Your task to perform on an android device: refresh tabs in the chrome app Image 0: 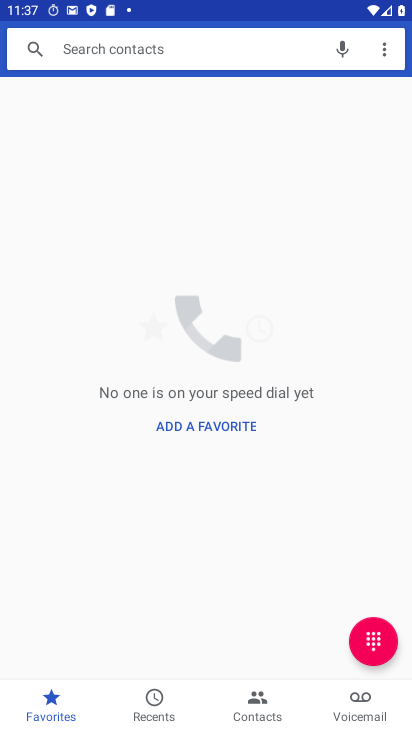
Step 0: press home button
Your task to perform on an android device: refresh tabs in the chrome app Image 1: 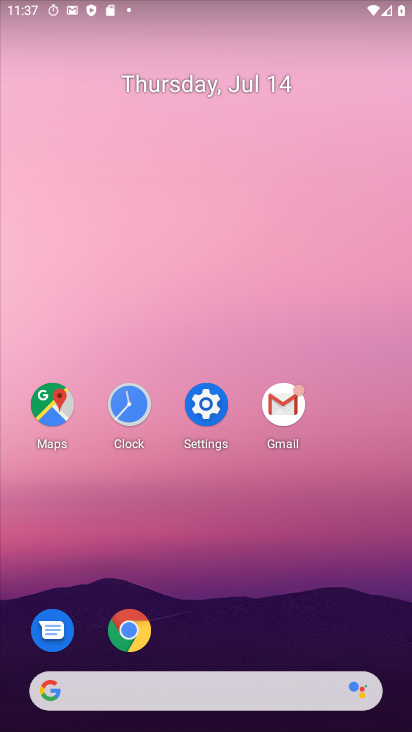
Step 1: click (129, 632)
Your task to perform on an android device: refresh tabs in the chrome app Image 2: 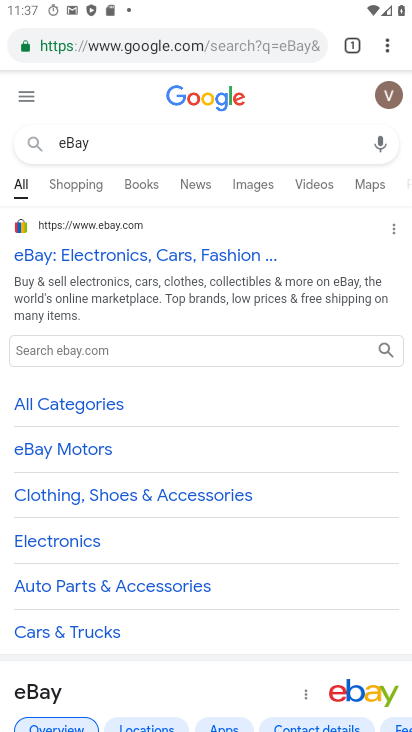
Step 2: click (385, 48)
Your task to perform on an android device: refresh tabs in the chrome app Image 3: 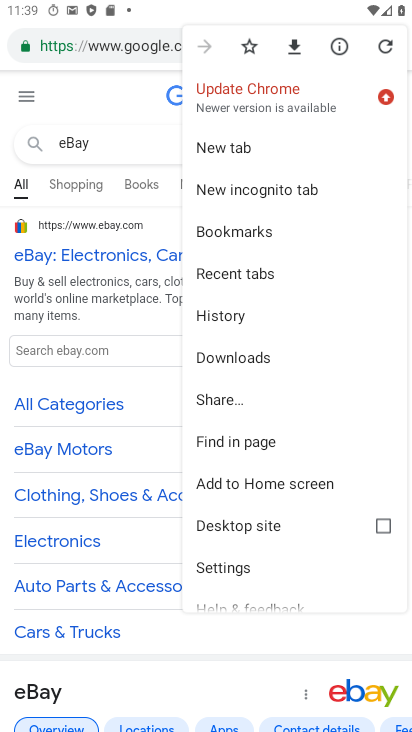
Step 3: click (241, 143)
Your task to perform on an android device: refresh tabs in the chrome app Image 4: 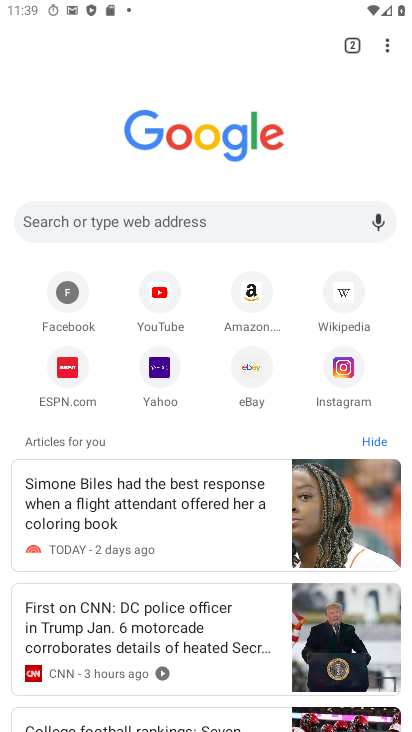
Step 4: task complete